Your task to perform on an android device: turn off smart reply in the gmail app Image 0: 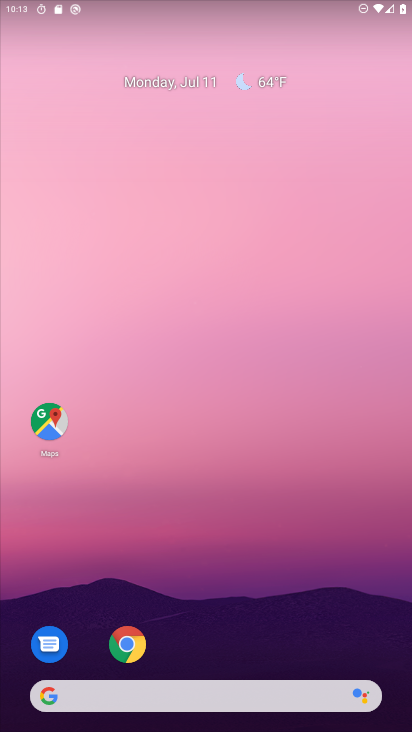
Step 0: drag from (345, 560) to (255, 140)
Your task to perform on an android device: turn off smart reply in the gmail app Image 1: 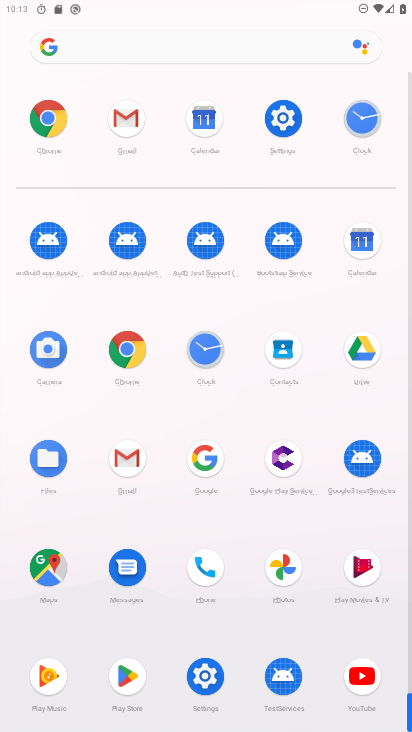
Step 1: click (126, 114)
Your task to perform on an android device: turn off smart reply in the gmail app Image 2: 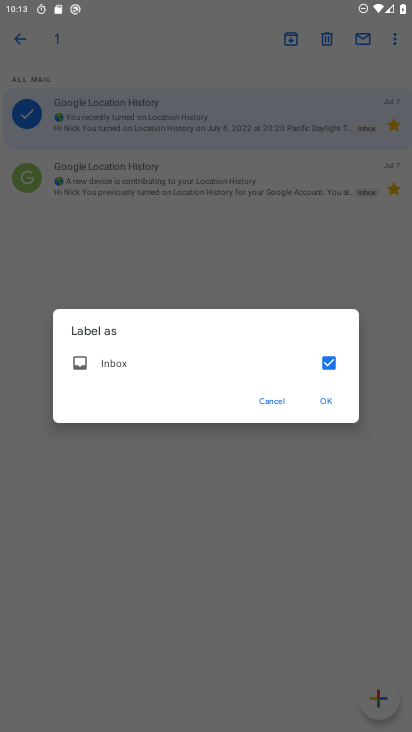
Step 2: click (278, 401)
Your task to perform on an android device: turn off smart reply in the gmail app Image 3: 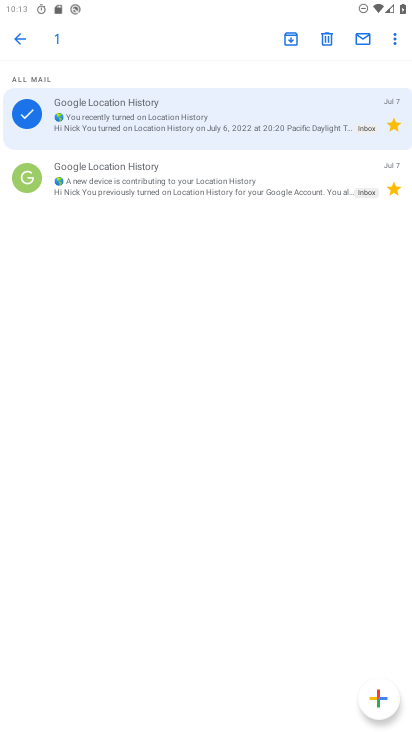
Step 3: click (28, 42)
Your task to perform on an android device: turn off smart reply in the gmail app Image 4: 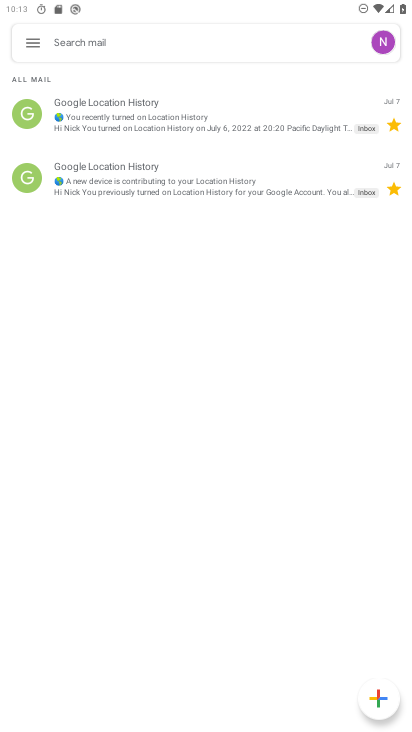
Step 4: click (37, 39)
Your task to perform on an android device: turn off smart reply in the gmail app Image 5: 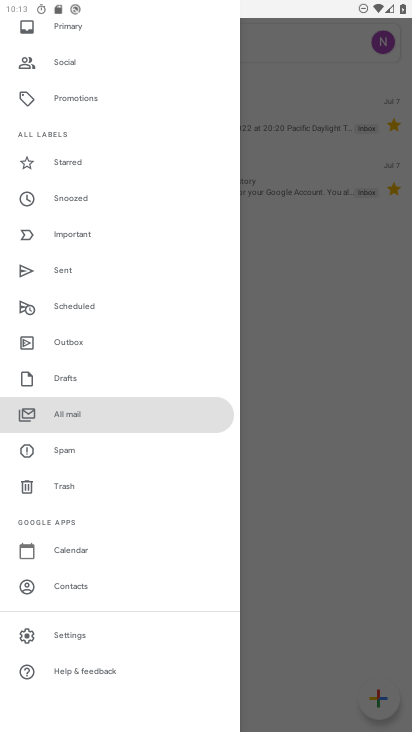
Step 5: click (80, 636)
Your task to perform on an android device: turn off smart reply in the gmail app Image 6: 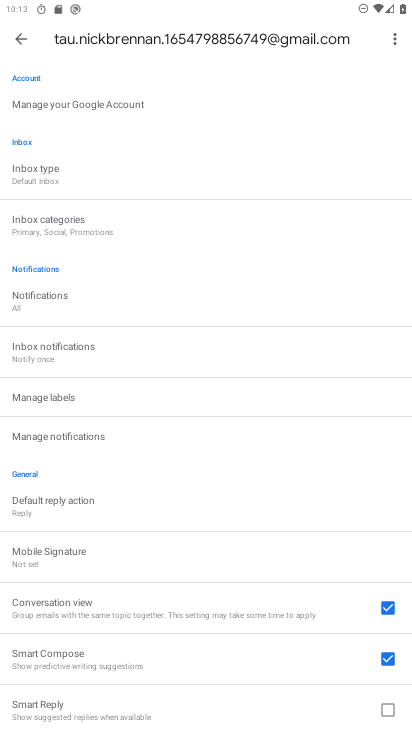
Step 6: task complete